Your task to perform on an android device: delete browsing data in the chrome app Image 0: 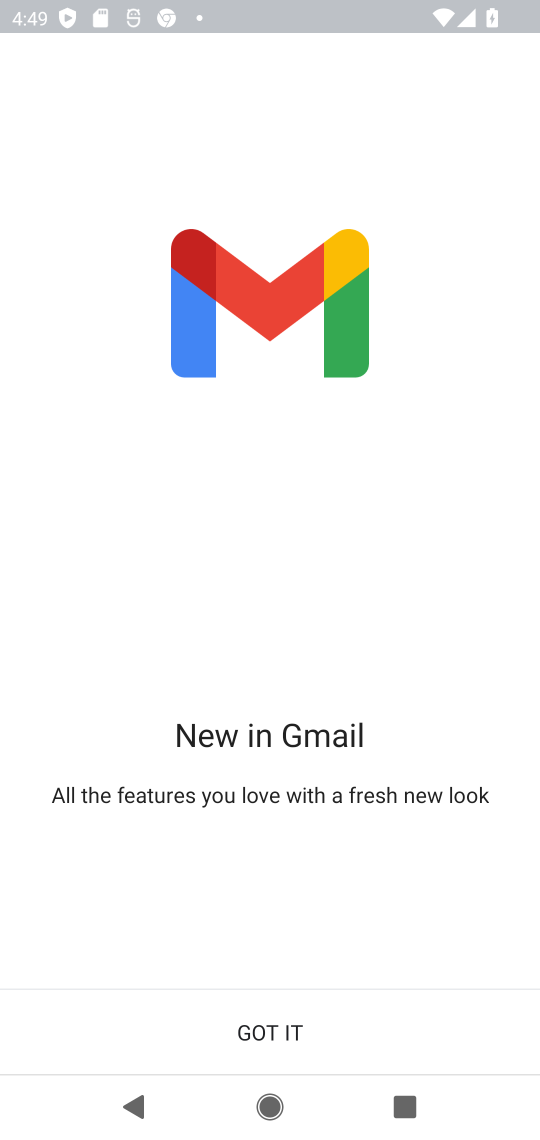
Step 0: press home button
Your task to perform on an android device: delete browsing data in the chrome app Image 1: 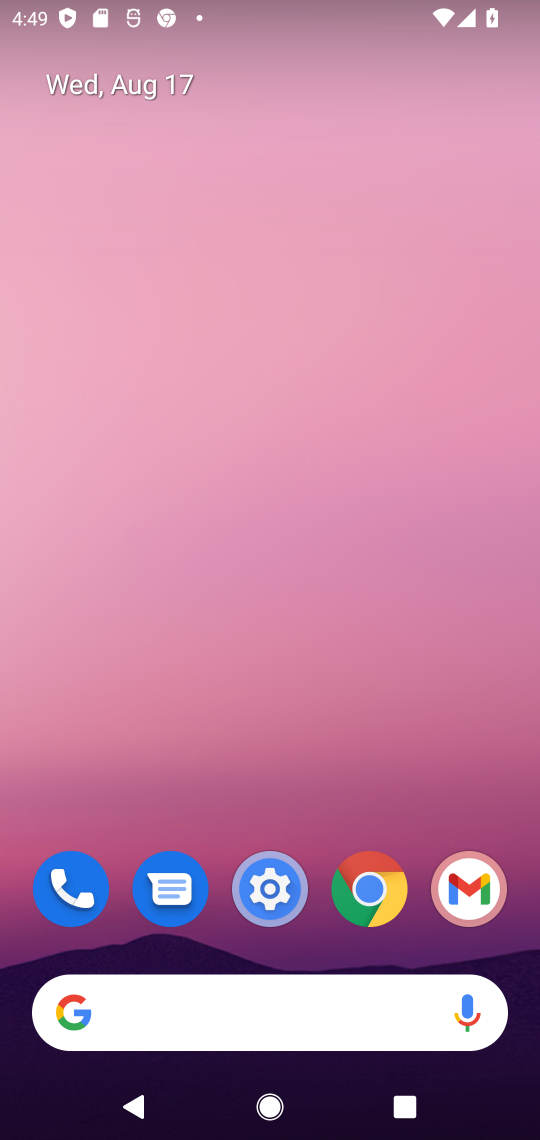
Step 1: click (371, 890)
Your task to perform on an android device: delete browsing data in the chrome app Image 2: 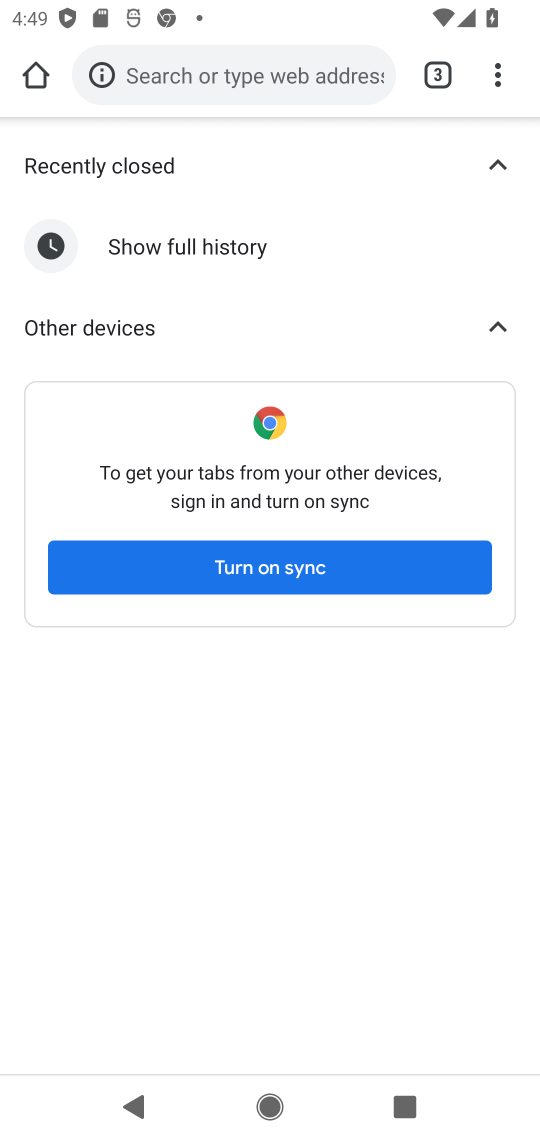
Step 2: click (495, 77)
Your task to perform on an android device: delete browsing data in the chrome app Image 3: 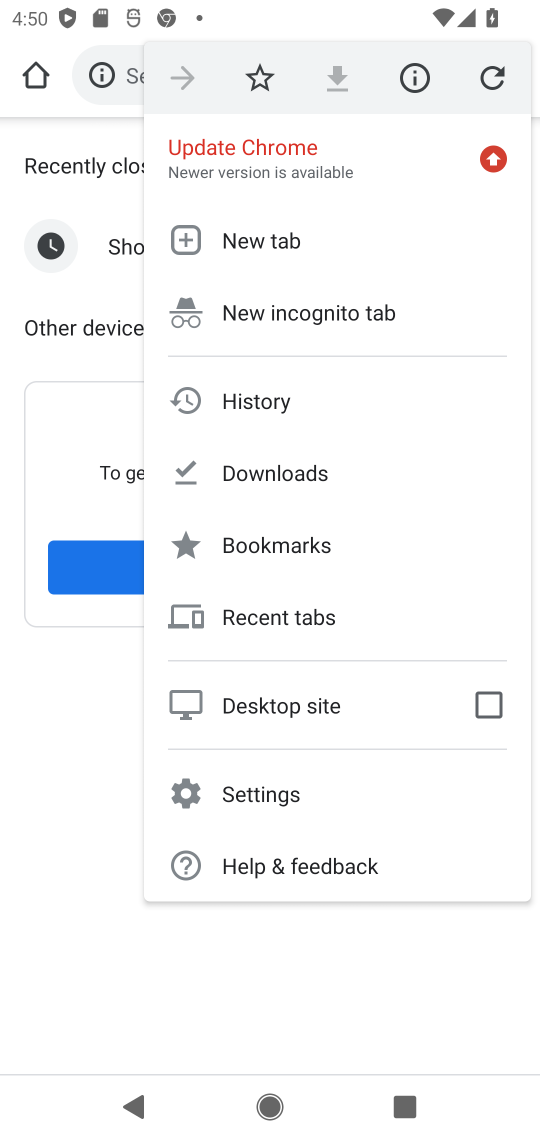
Step 3: click (260, 397)
Your task to perform on an android device: delete browsing data in the chrome app Image 4: 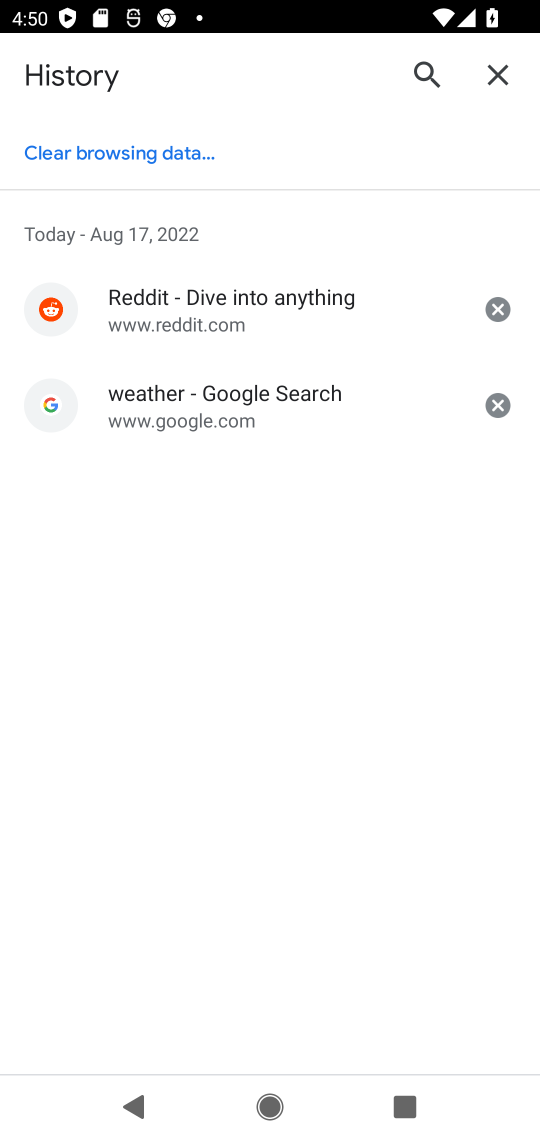
Step 4: click (137, 152)
Your task to perform on an android device: delete browsing data in the chrome app Image 5: 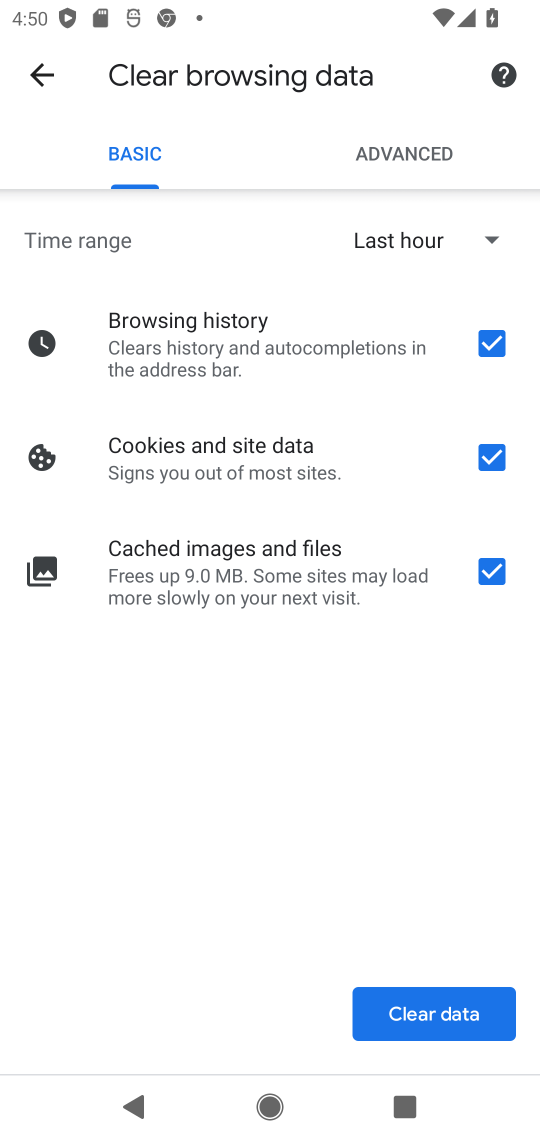
Step 5: click (448, 1004)
Your task to perform on an android device: delete browsing data in the chrome app Image 6: 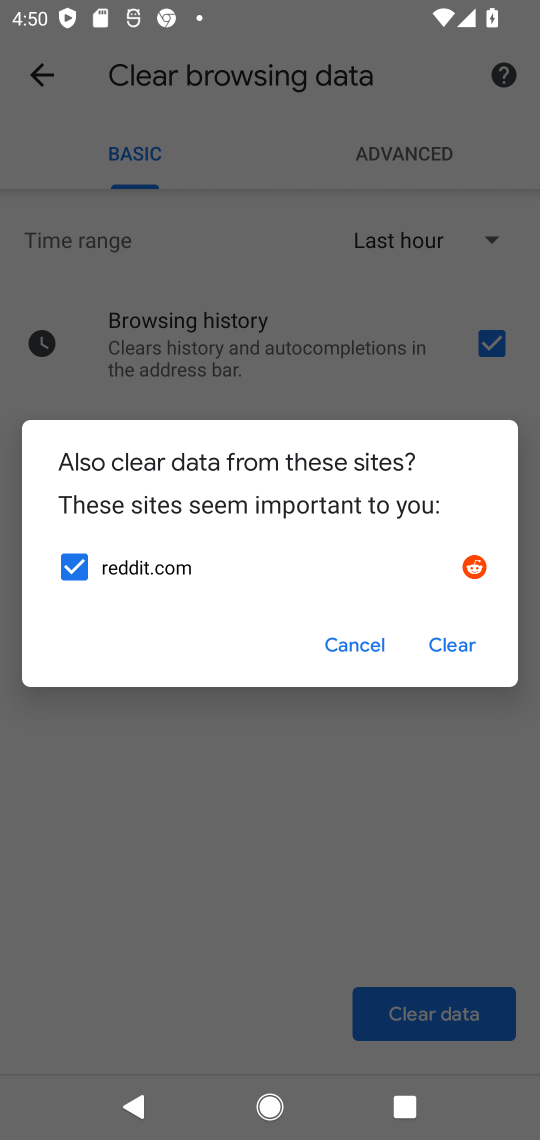
Step 6: click (463, 648)
Your task to perform on an android device: delete browsing data in the chrome app Image 7: 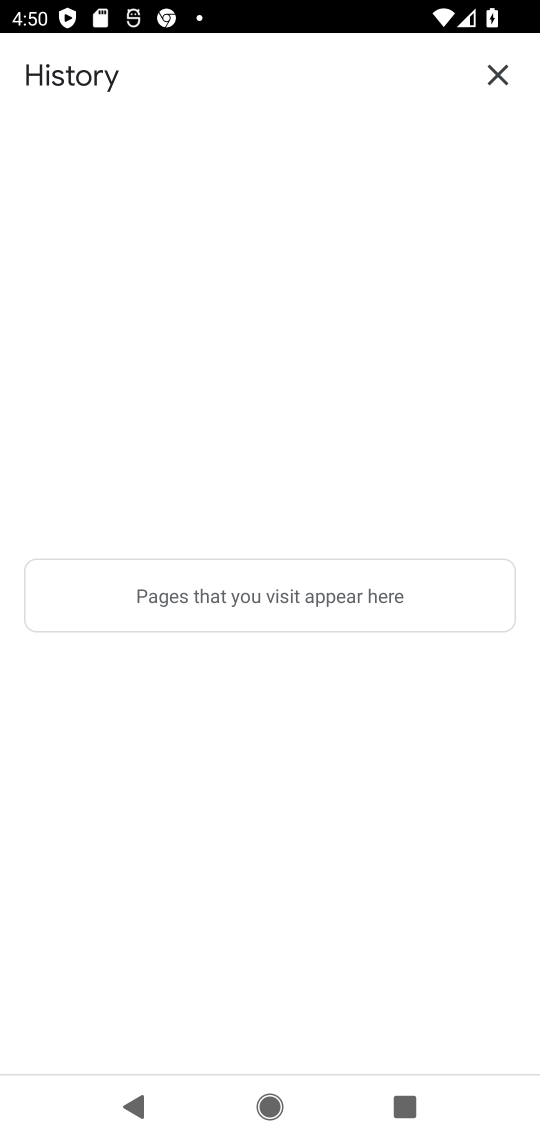
Step 7: task complete